Your task to perform on an android device: toggle sleep mode Image 0: 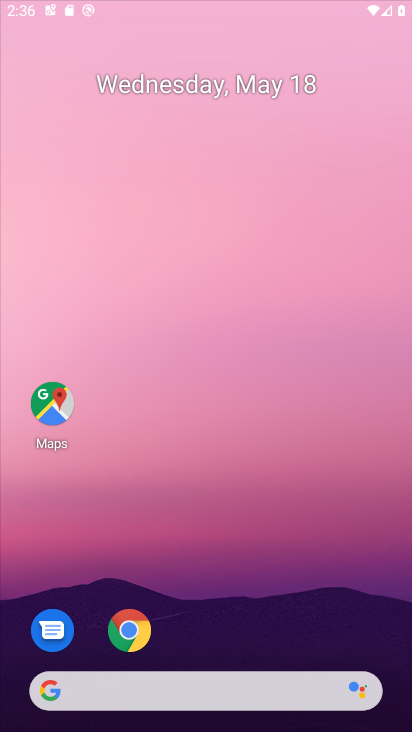
Step 0: press home button
Your task to perform on an android device: toggle sleep mode Image 1: 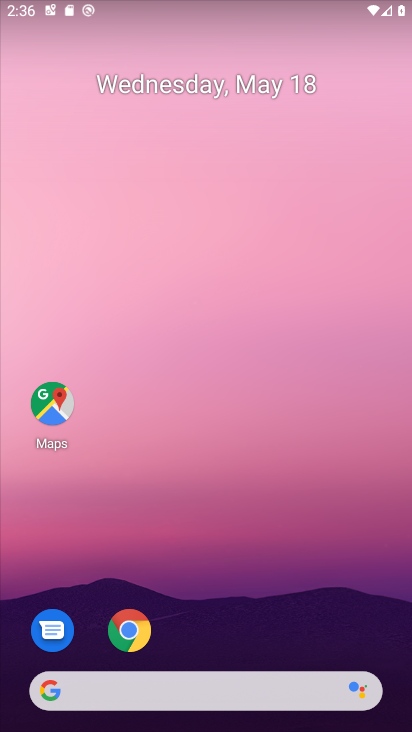
Step 1: drag from (227, 651) to (291, 131)
Your task to perform on an android device: toggle sleep mode Image 2: 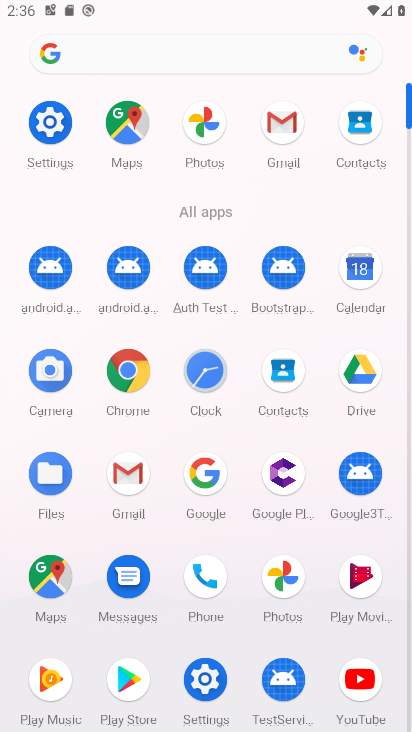
Step 2: click (203, 670)
Your task to perform on an android device: toggle sleep mode Image 3: 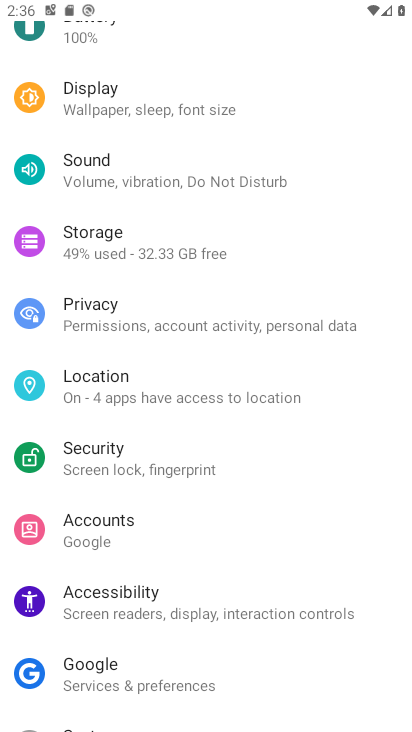
Step 3: click (137, 81)
Your task to perform on an android device: toggle sleep mode Image 4: 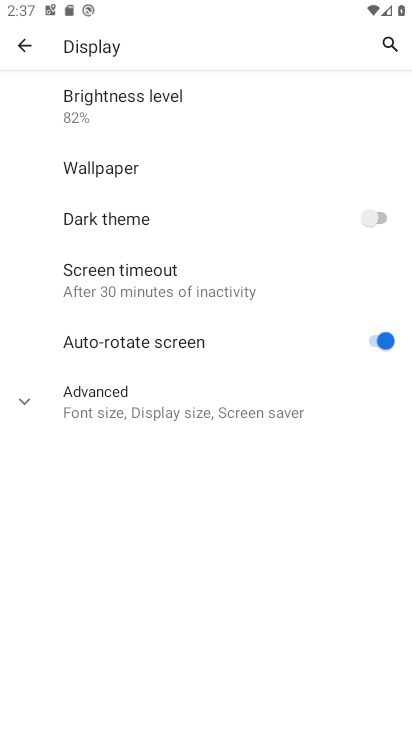
Step 4: click (29, 395)
Your task to perform on an android device: toggle sleep mode Image 5: 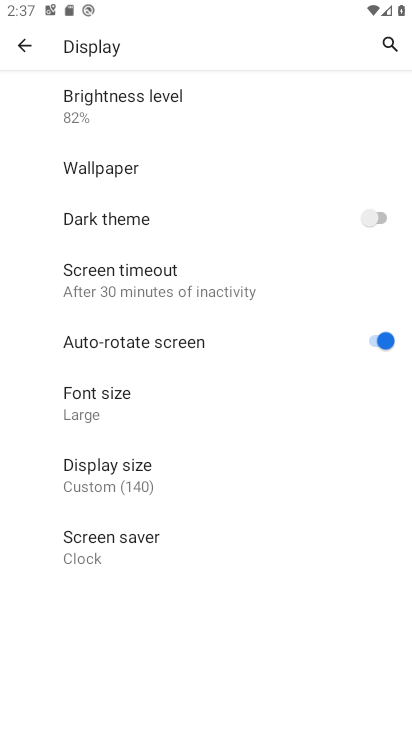
Step 5: task complete